Your task to perform on an android device: Open location settings Image 0: 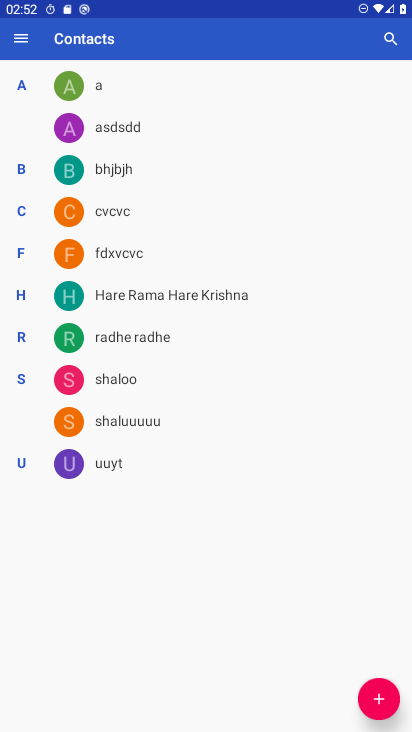
Step 0: press home button
Your task to perform on an android device: Open location settings Image 1: 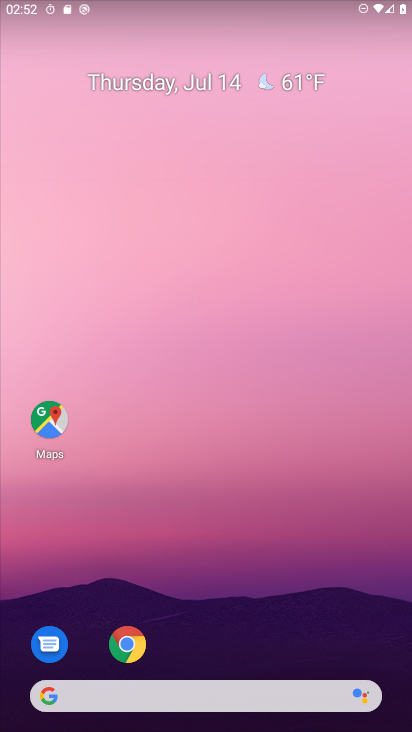
Step 1: drag from (288, 536) to (245, 96)
Your task to perform on an android device: Open location settings Image 2: 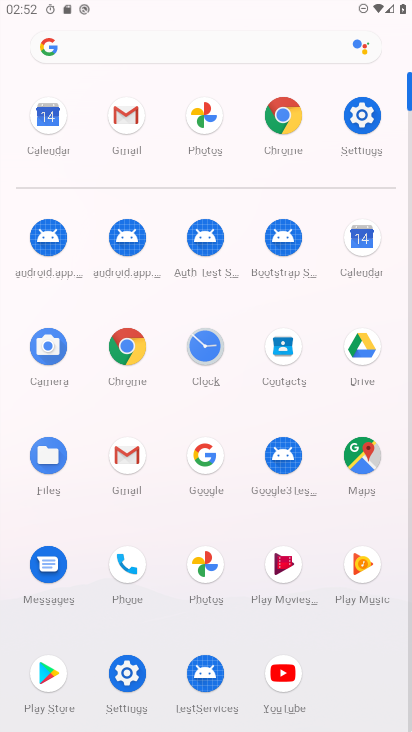
Step 2: click (358, 111)
Your task to perform on an android device: Open location settings Image 3: 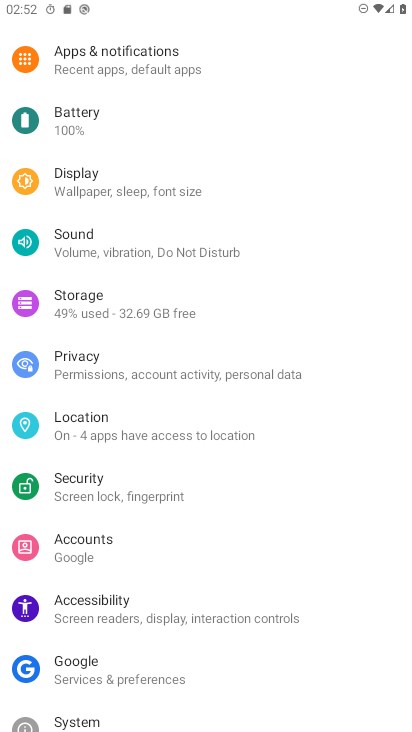
Step 3: click (118, 433)
Your task to perform on an android device: Open location settings Image 4: 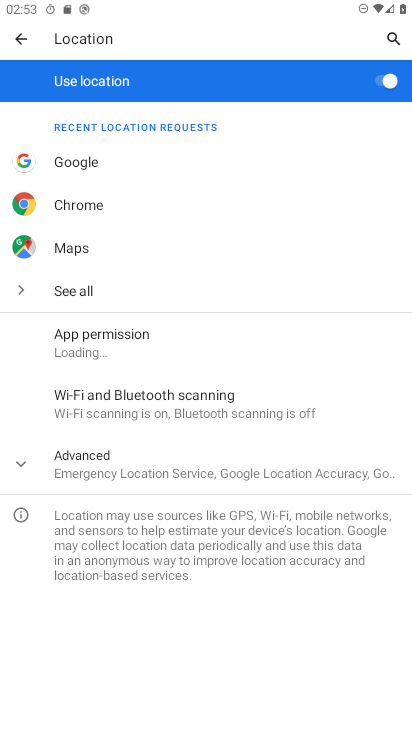
Step 4: task complete